Your task to perform on an android device: clear all cookies in the chrome app Image 0: 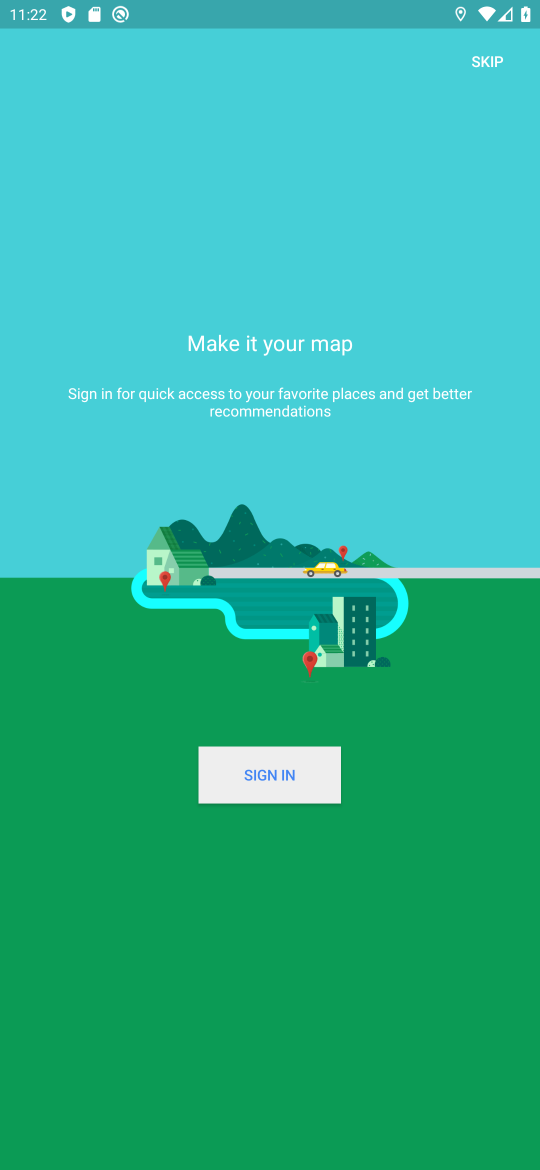
Step 0: press home button
Your task to perform on an android device: clear all cookies in the chrome app Image 1: 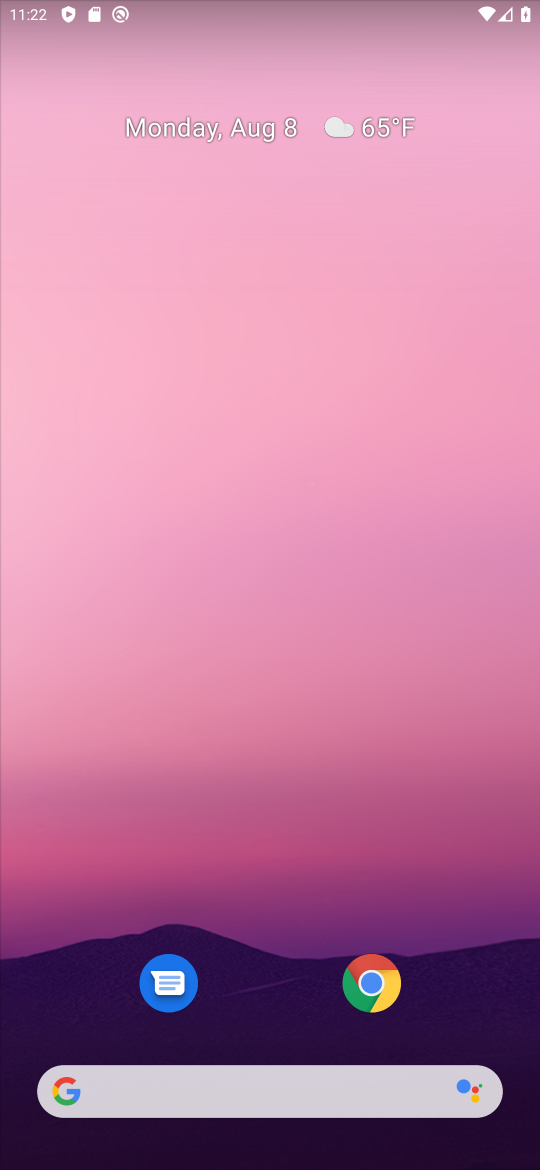
Step 1: click (373, 989)
Your task to perform on an android device: clear all cookies in the chrome app Image 2: 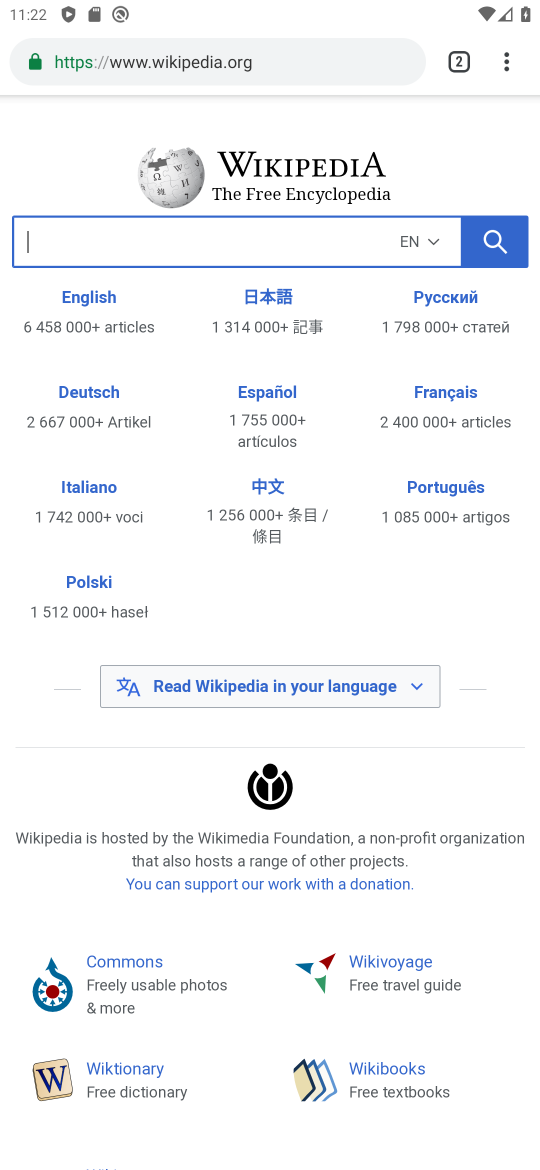
Step 2: click (514, 64)
Your task to perform on an android device: clear all cookies in the chrome app Image 3: 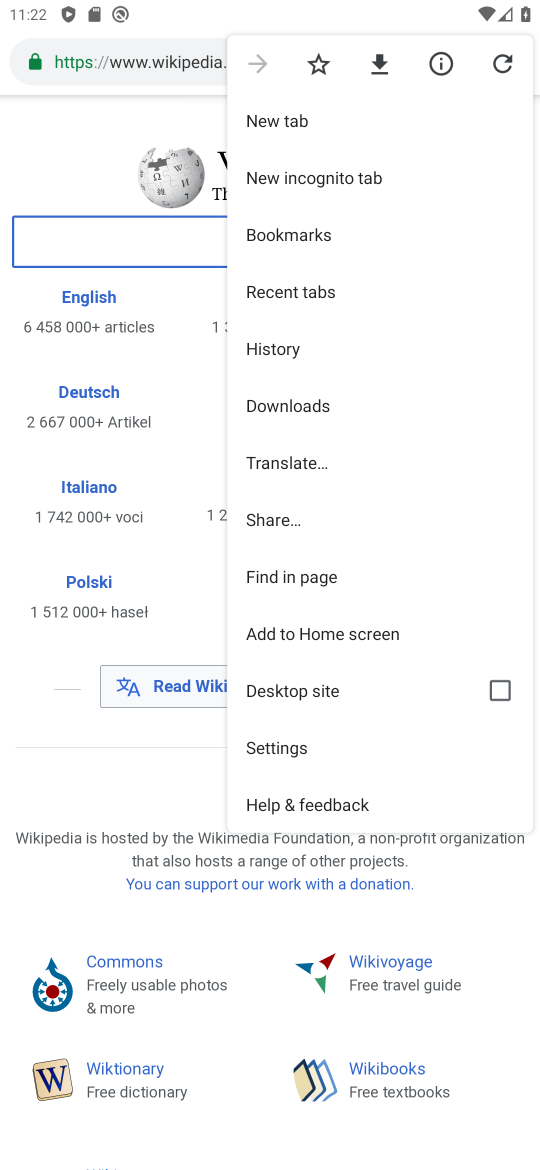
Step 3: click (381, 735)
Your task to perform on an android device: clear all cookies in the chrome app Image 4: 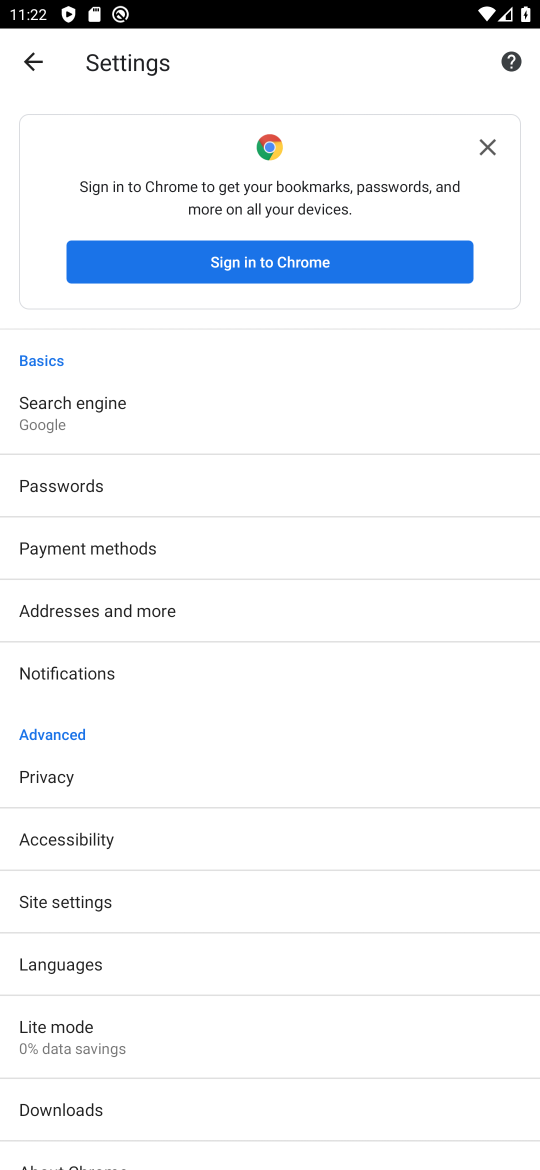
Step 4: task complete